Your task to perform on an android device: Open the phone app and click the voicemail tab. Image 0: 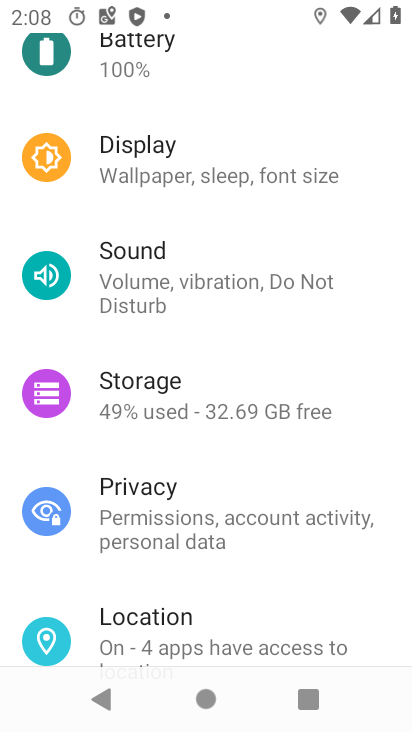
Step 0: press home button
Your task to perform on an android device: Open the phone app and click the voicemail tab. Image 1: 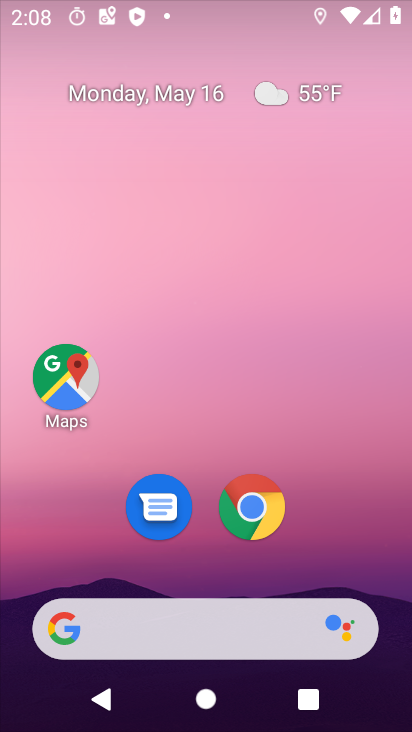
Step 1: drag from (219, 476) to (230, 57)
Your task to perform on an android device: Open the phone app and click the voicemail tab. Image 2: 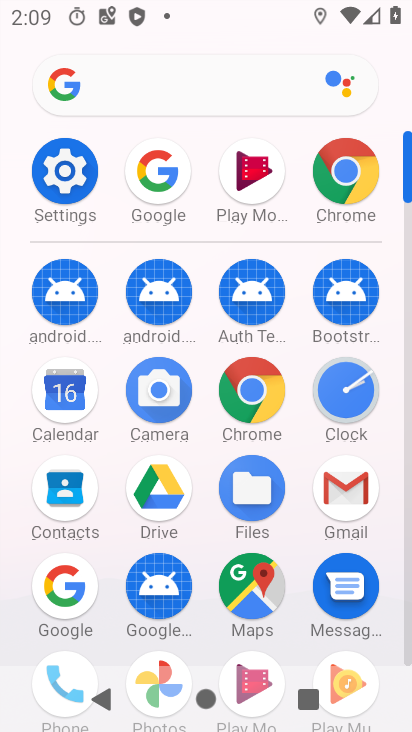
Step 2: drag from (137, 210) to (142, 170)
Your task to perform on an android device: Open the phone app and click the voicemail tab. Image 3: 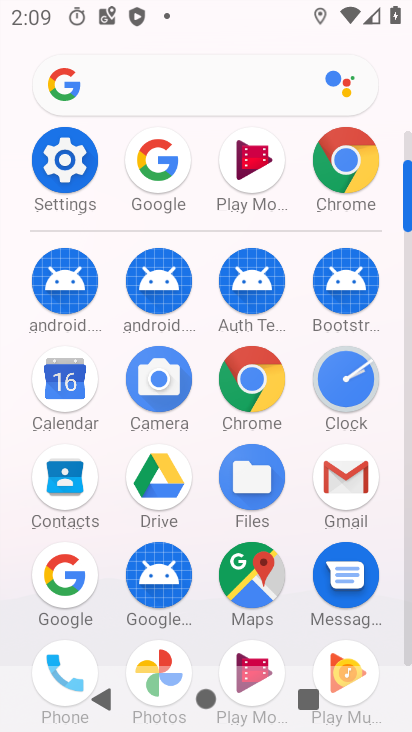
Step 3: click (52, 662)
Your task to perform on an android device: Open the phone app and click the voicemail tab. Image 4: 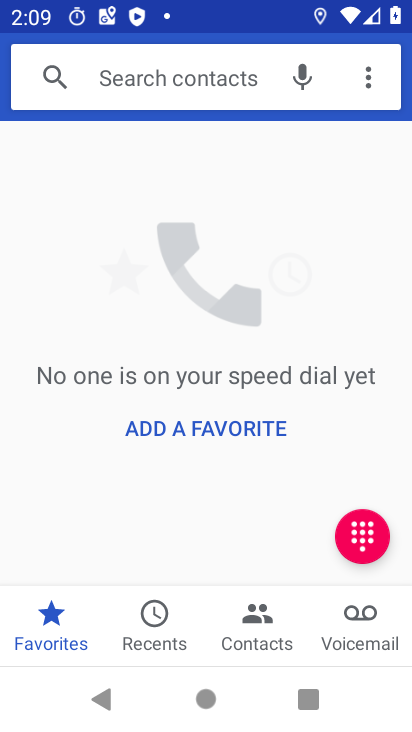
Step 4: click (367, 627)
Your task to perform on an android device: Open the phone app and click the voicemail tab. Image 5: 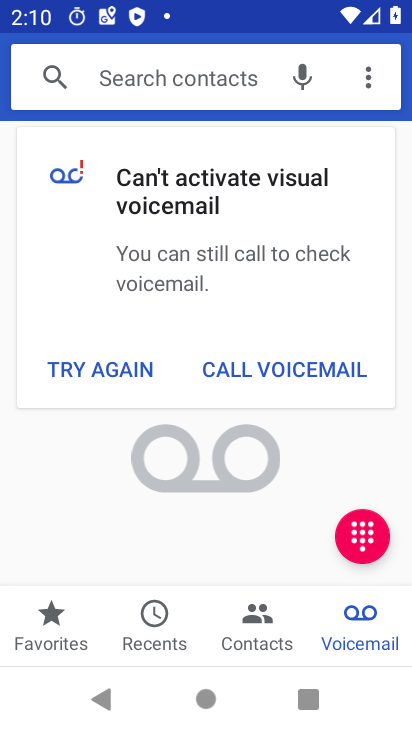
Step 5: task complete